Your task to perform on an android device: Go to Maps Image 0: 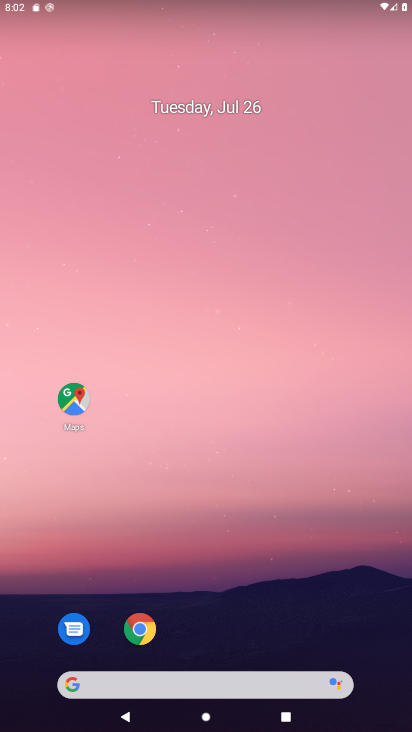
Step 0: click (63, 406)
Your task to perform on an android device: Go to Maps Image 1: 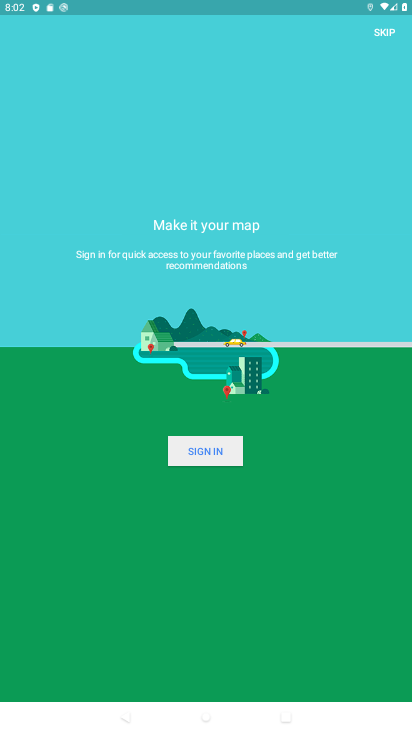
Step 1: task complete